Your task to perform on an android device: toggle improve location accuracy Image 0: 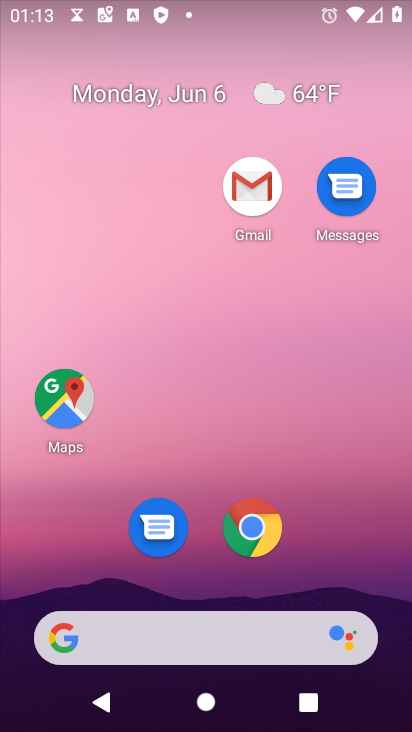
Step 0: drag from (298, 594) to (287, 98)
Your task to perform on an android device: toggle improve location accuracy Image 1: 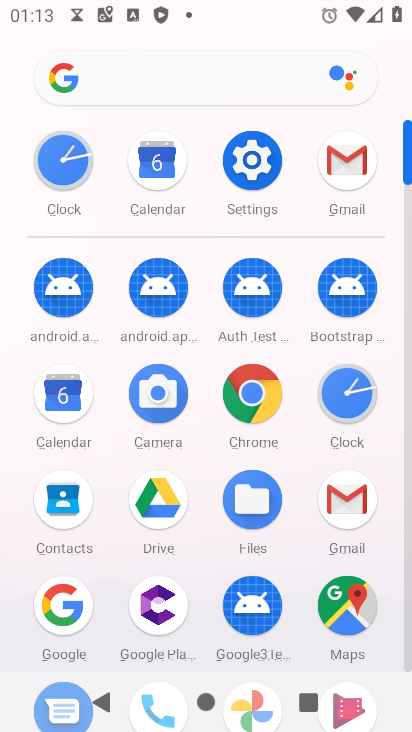
Step 1: click (262, 159)
Your task to perform on an android device: toggle improve location accuracy Image 2: 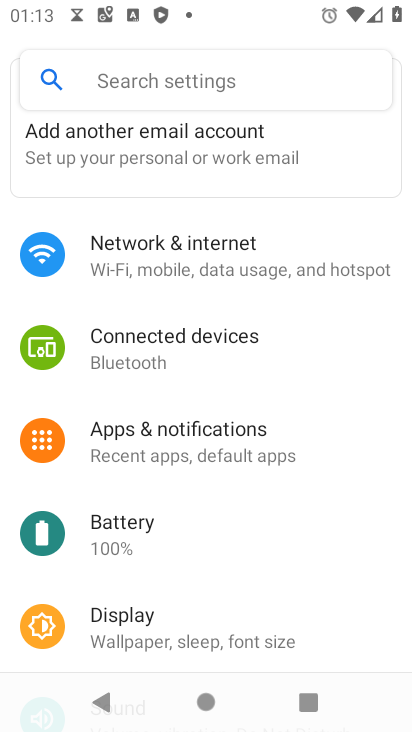
Step 2: drag from (260, 573) to (256, 196)
Your task to perform on an android device: toggle improve location accuracy Image 3: 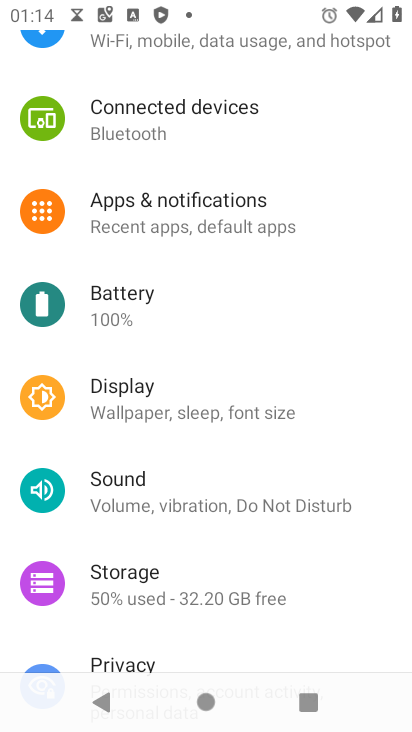
Step 3: drag from (242, 595) to (241, 315)
Your task to perform on an android device: toggle improve location accuracy Image 4: 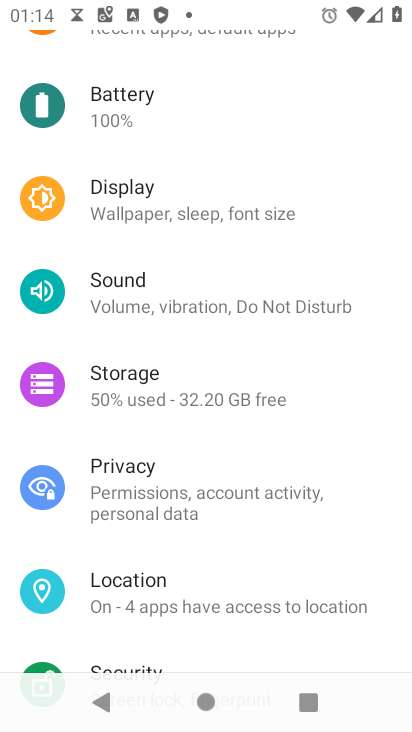
Step 4: drag from (247, 539) to (266, 328)
Your task to perform on an android device: toggle improve location accuracy Image 5: 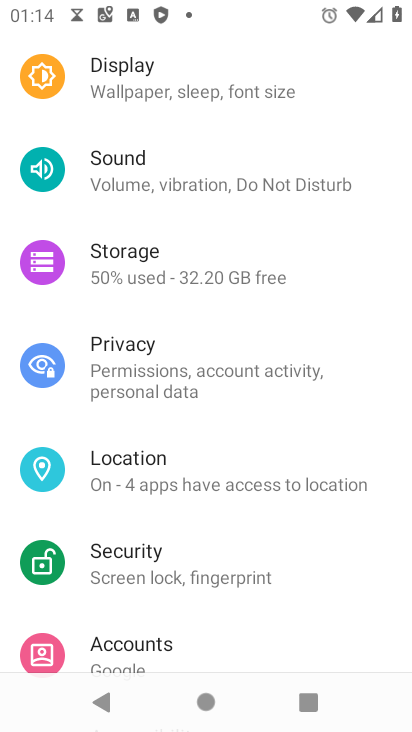
Step 5: click (227, 478)
Your task to perform on an android device: toggle improve location accuracy Image 6: 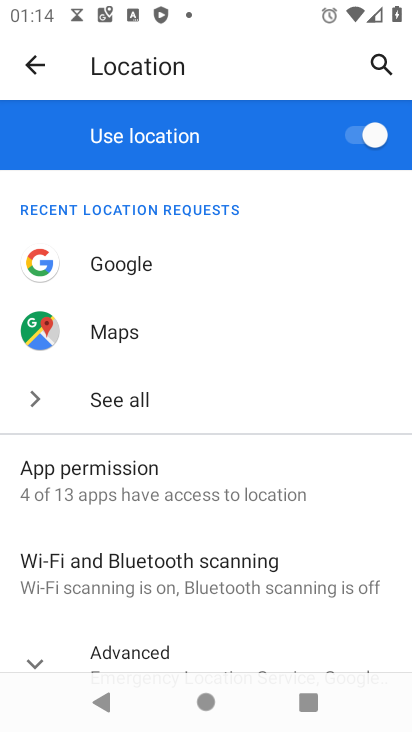
Step 6: drag from (284, 560) to (309, 277)
Your task to perform on an android device: toggle improve location accuracy Image 7: 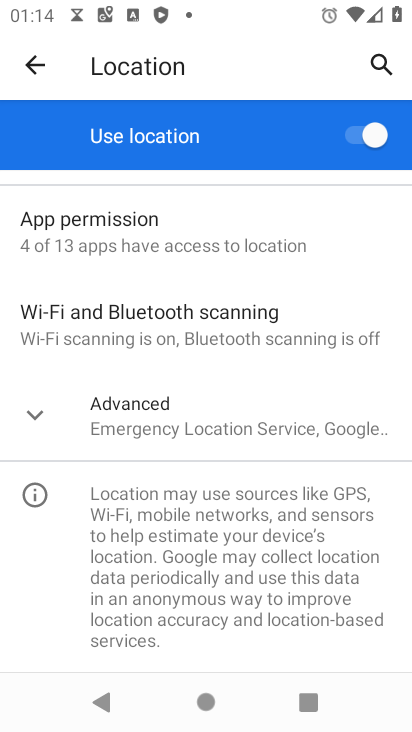
Step 7: click (267, 417)
Your task to perform on an android device: toggle improve location accuracy Image 8: 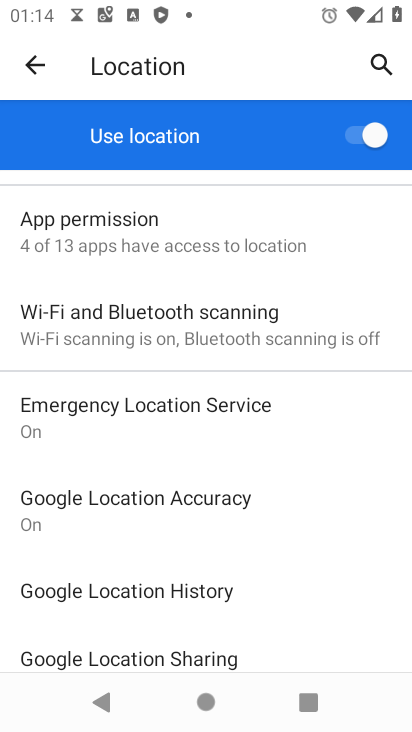
Step 8: click (221, 507)
Your task to perform on an android device: toggle improve location accuracy Image 9: 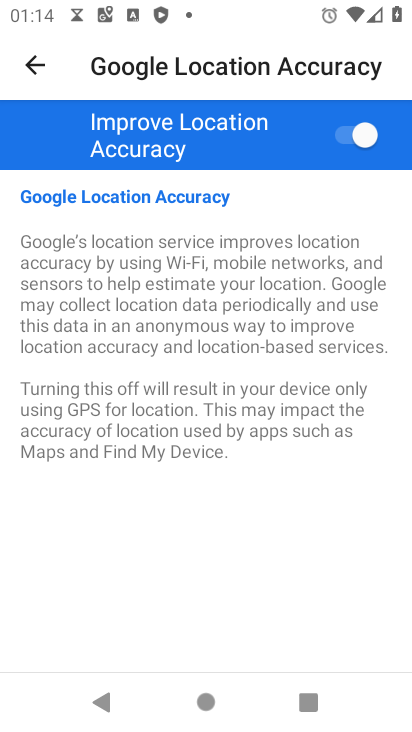
Step 9: click (348, 136)
Your task to perform on an android device: toggle improve location accuracy Image 10: 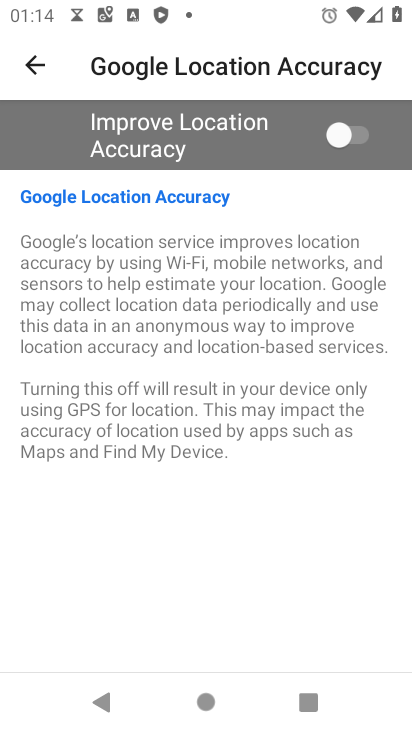
Step 10: task complete